Your task to perform on an android device: Search for seafood restaurants on Google Maps Image 0: 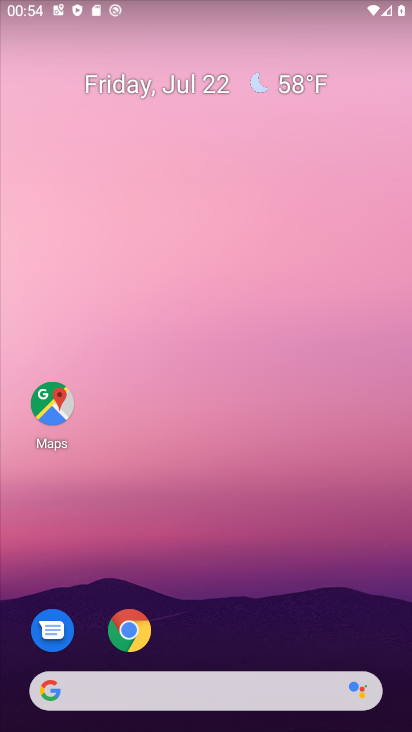
Step 0: drag from (281, 608) to (325, 100)
Your task to perform on an android device: Search for seafood restaurants on Google Maps Image 1: 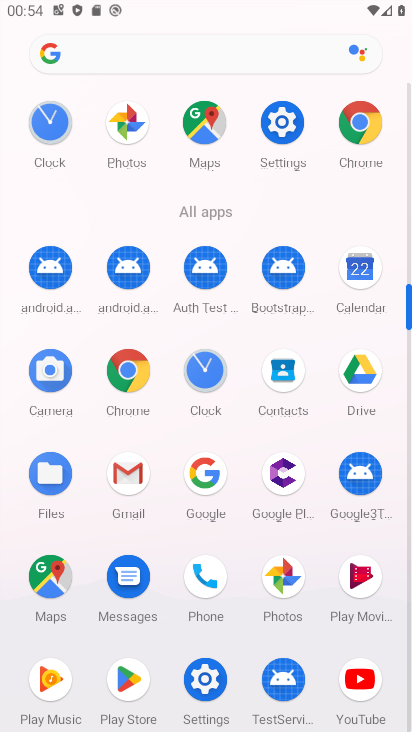
Step 1: click (210, 284)
Your task to perform on an android device: Search for seafood restaurants on Google Maps Image 2: 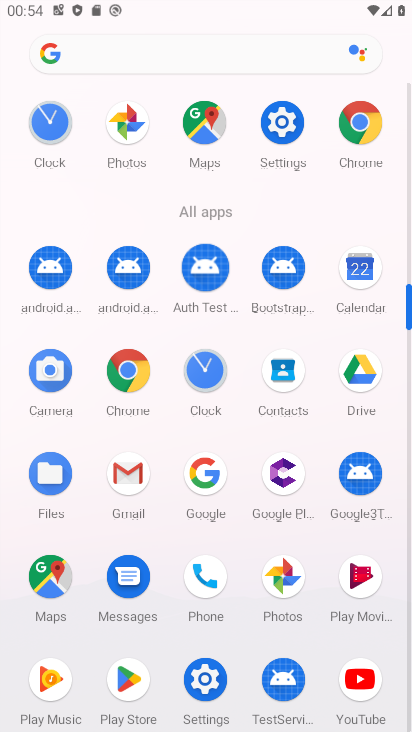
Step 2: click (196, 113)
Your task to perform on an android device: Search for seafood restaurants on Google Maps Image 3: 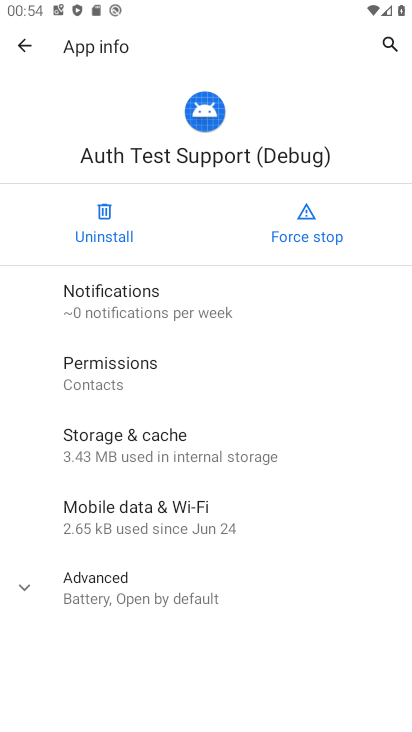
Step 3: click (195, 114)
Your task to perform on an android device: Search for seafood restaurants on Google Maps Image 4: 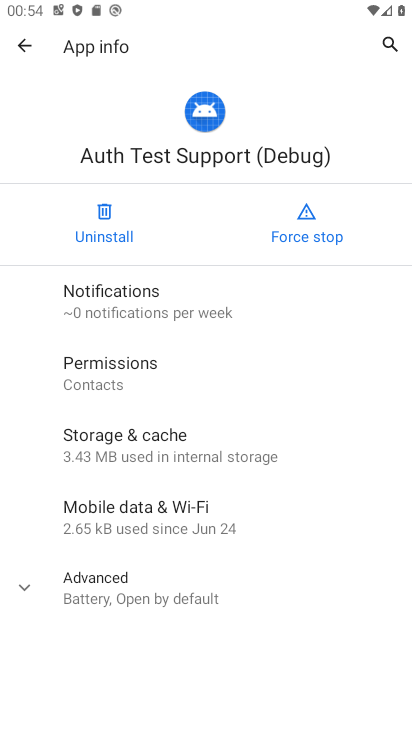
Step 4: click (20, 43)
Your task to perform on an android device: Search for seafood restaurants on Google Maps Image 5: 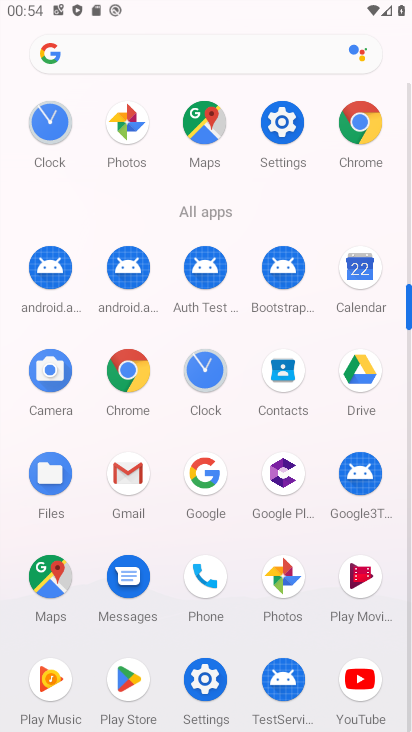
Step 5: click (192, 124)
Your task to perform on an android device: Search for seafood restaurants on Google Maps Image 6: 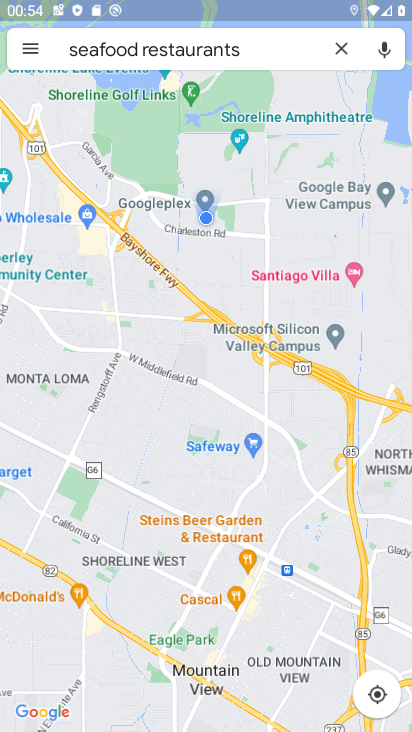
Step 6: click (336, 49)
Your task to perform on an android device: Search for seafood restaurants on Google Maps Image 7: 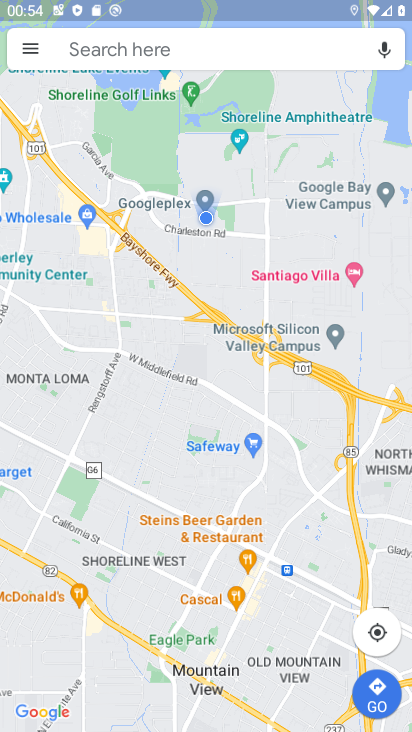
Step 7: click (229, 52)
Your task to perform on an android device: Search for seafood restaurants on Google Maps Image 8: 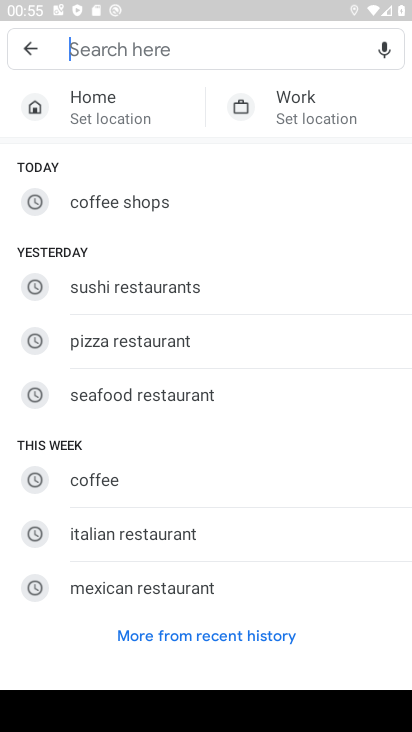
Step 8: type " seafood restaurants"
Your task to perform on an android device: Search for seafood restaurants on Google Maps Image 9: 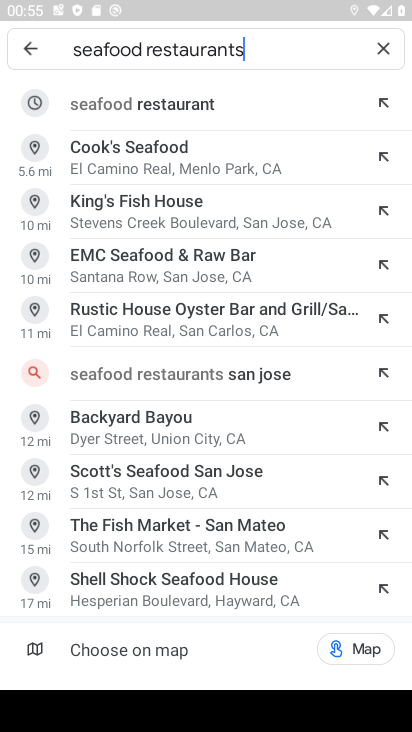
Step 9: click (186, 108)
Your task to perform on an android device: Search for seafood restaurants on Google Maps Image 10: 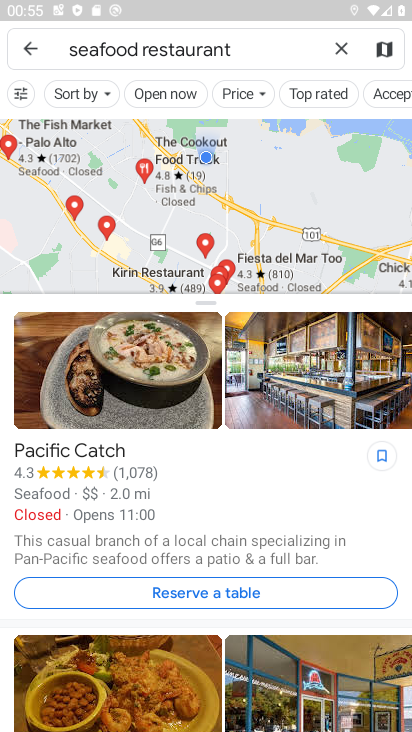
Step 10: task complete